Your task to perform on an android device: Show me popular videos on Youtube Image 0: 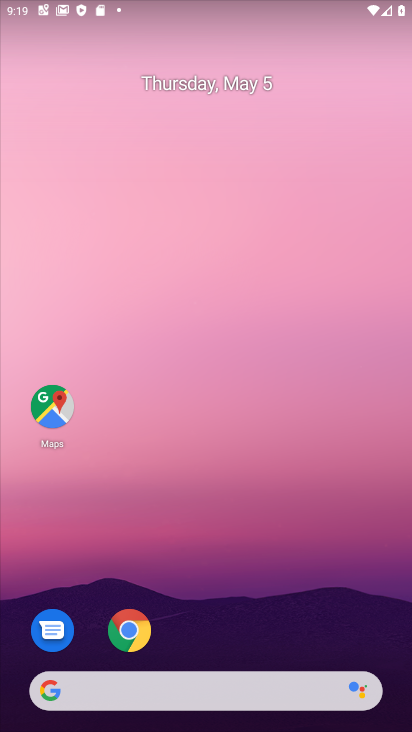
Step 0: drag from (198, 599) to (36, 109)
Your task to perform on an android device: Show me popular videos on Youtube Image 1: 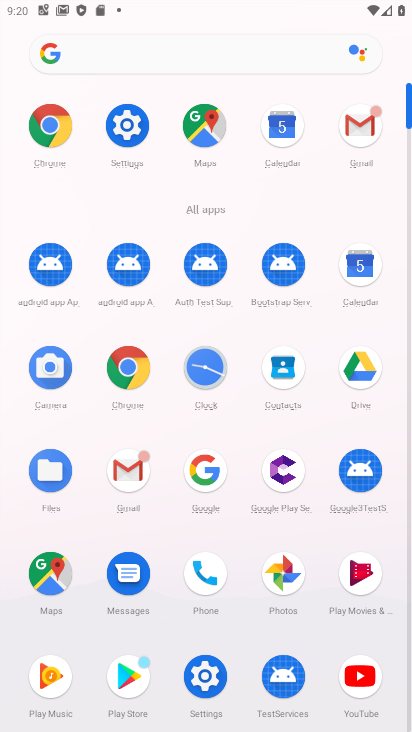
Step 1: click (364, 679)
Your task to perform on an android device: Show me popular videos on Youtube Image 2: 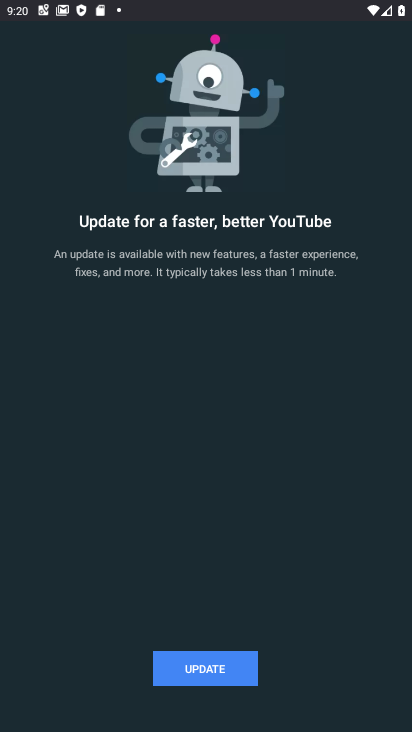
Step 2: click (199, 668)
Your task to perform on an android device: Show me popular videos on Youtube Image 3: 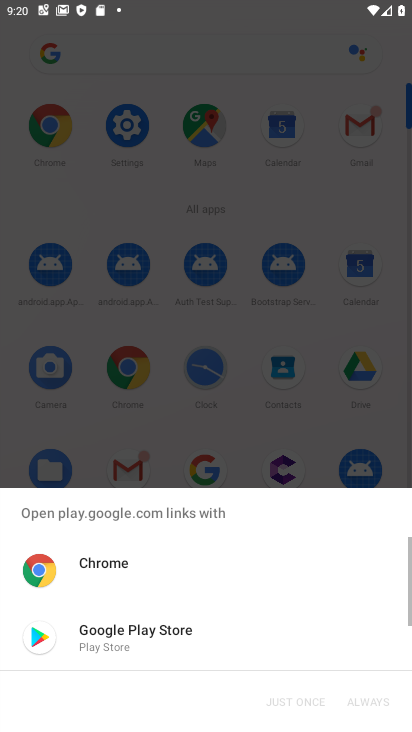
Step 3: click (167, 645)
Your task to perform on an android device: Show me popular videos on Youtube Image 4: 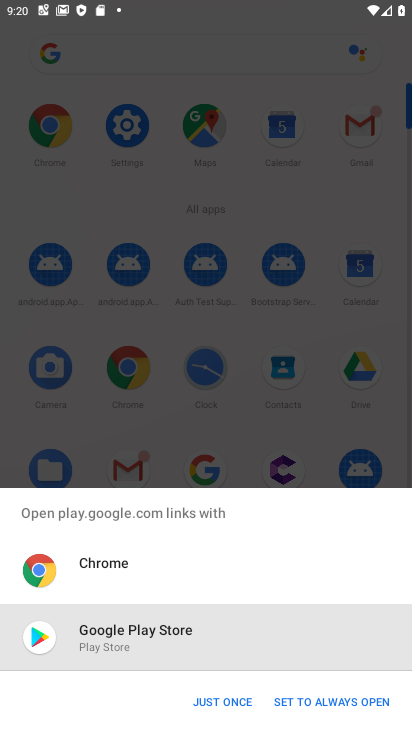
Step 4: click (227, 703)
Your task to perform on an android device: Show me popular videos on Youtube Image 5: 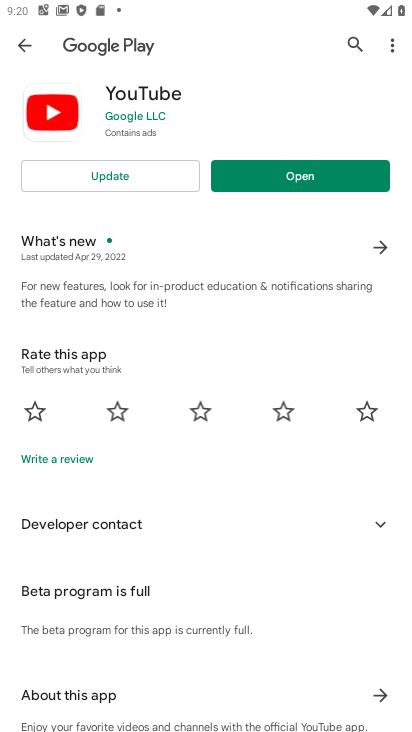
Step 5: click (115, 178)
Your task to perform on an android device: Show me popular videos on Youtube Image 6: 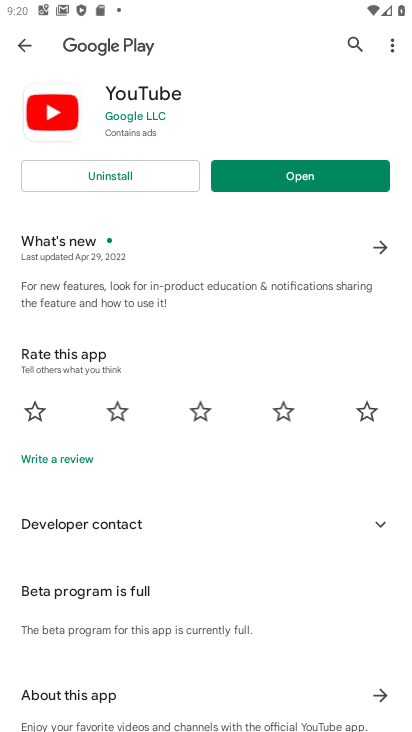
Step 6: click (237, 174)
Your task to perform on an android device: Show me popular videos on Youtube Image 7: 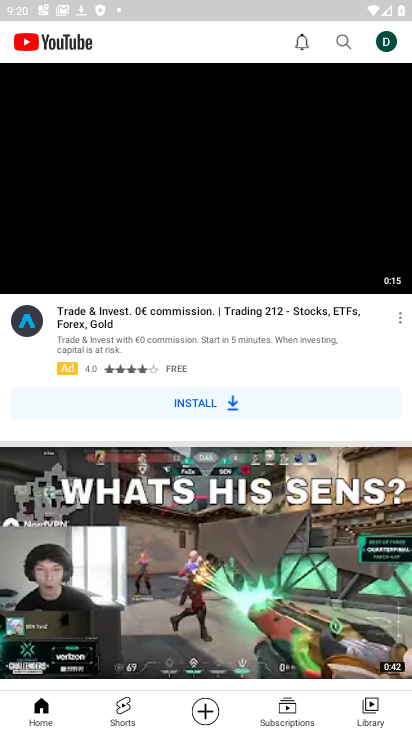
Step 7: drag from (161, 126) to (158, 354)
Your task to perform on an android device: Show me popular videos on Youtube Image 8: 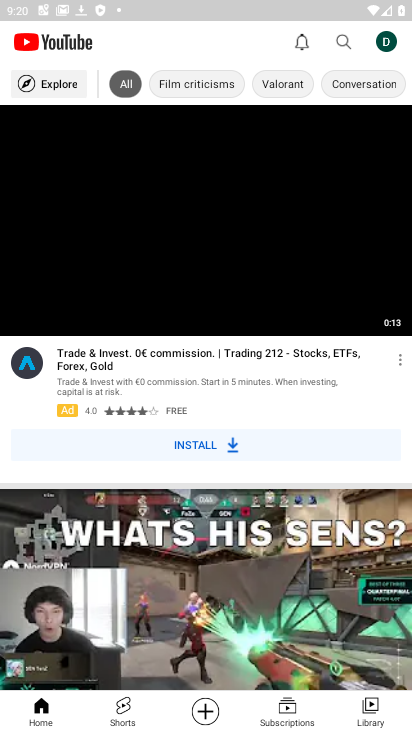
Step 8: click (40, 82)
Your task to perform on an android device: Show me popular videos on Youtube Image 9: 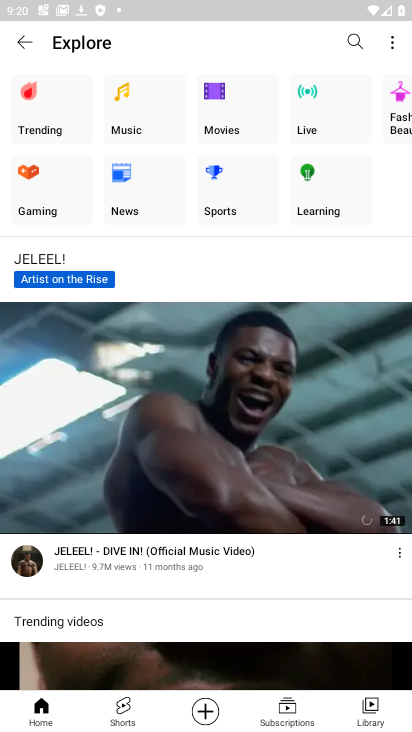
Step 9: click (51, 117)
Your task to perform on an android device: Show me popular videos on Youtube Image 10: 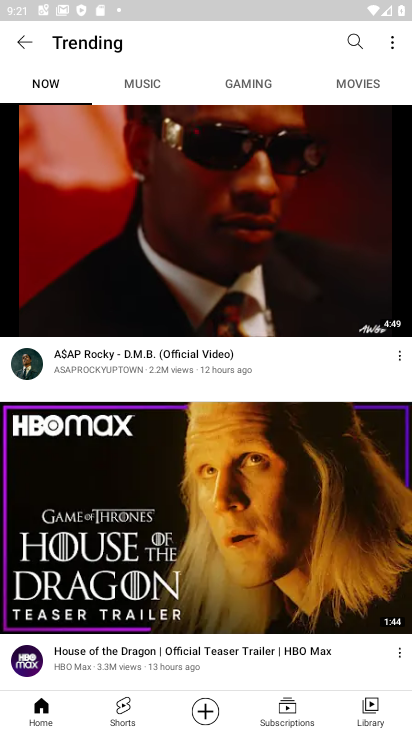
Step 10: task complete